Your task to perform on an android device: set an alarm Image 0: 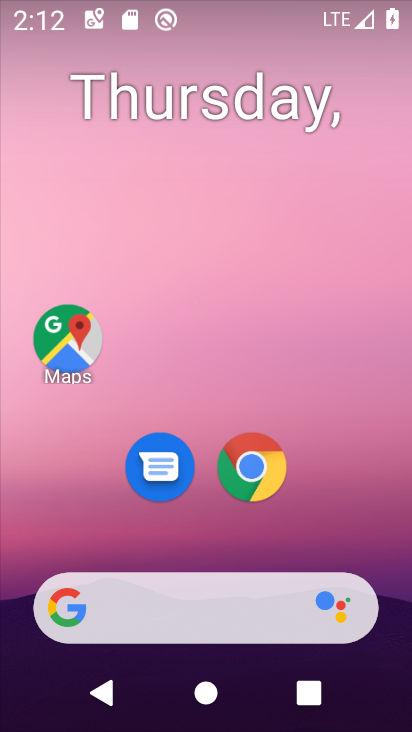
Step 0: drag from (205, 558) to (96, 15)
Your task to perform on an android device: set an alarm Image 1: 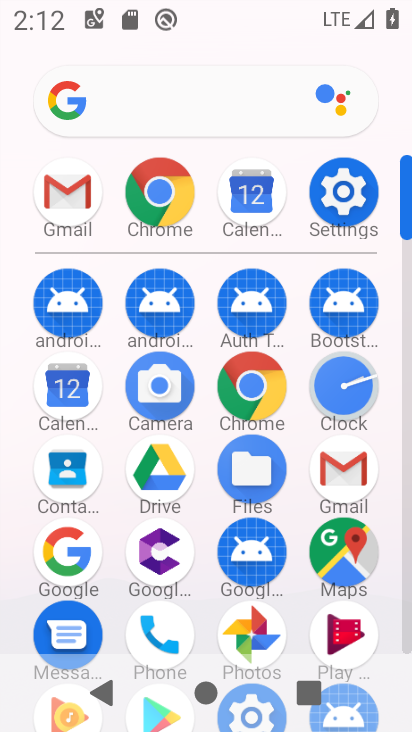
Step 1: click (328, 390)
Your task to perform on an android device: set an alarm Image 2: 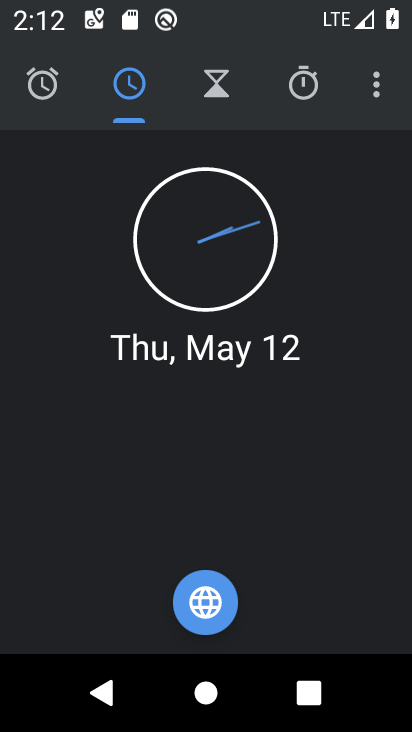
Step 2: click (52, 80)
Your task to perform on an android device: set an alarm Image 3: 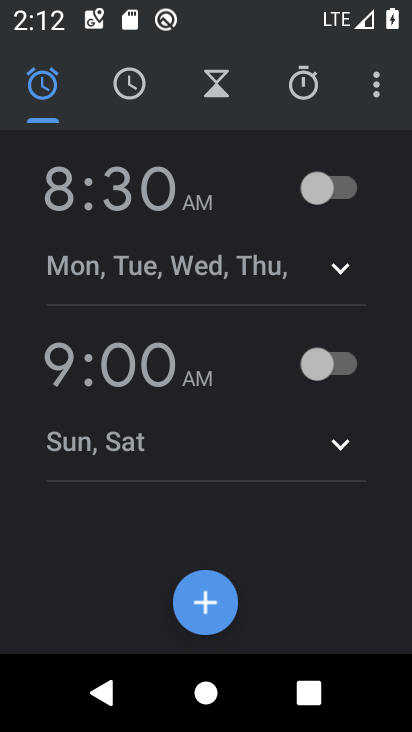
Step 3: click (221, 583)
Your task to perform on an android device: set an alarm Image 4: 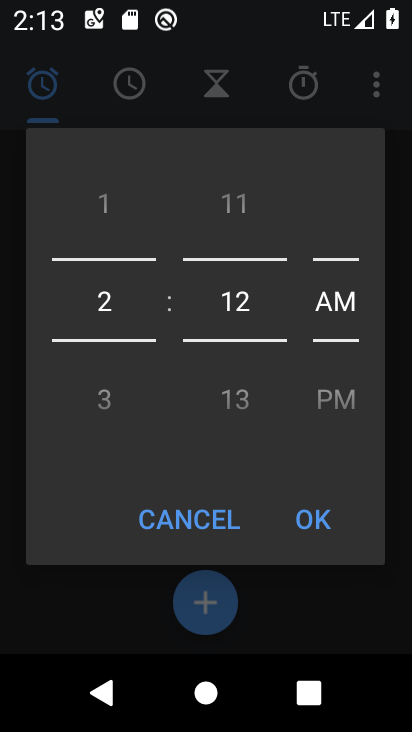
Step 4: click (296, 523)
Your task to perform on an android device: set an alarm Image 5: 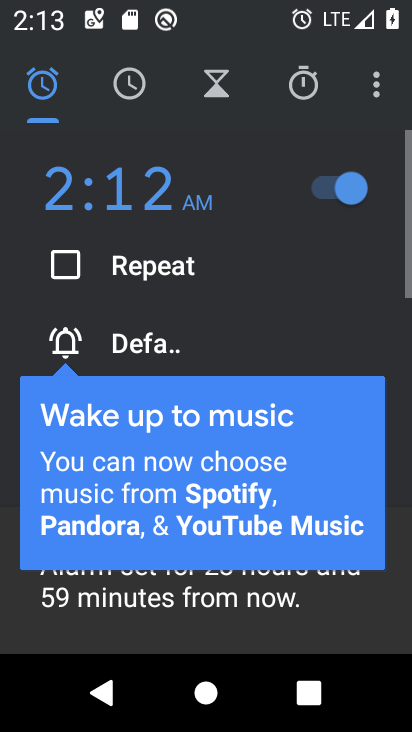
Step 5: task complete